Your task to perform on an android device: visit the assistant section in the google photos Image 0: 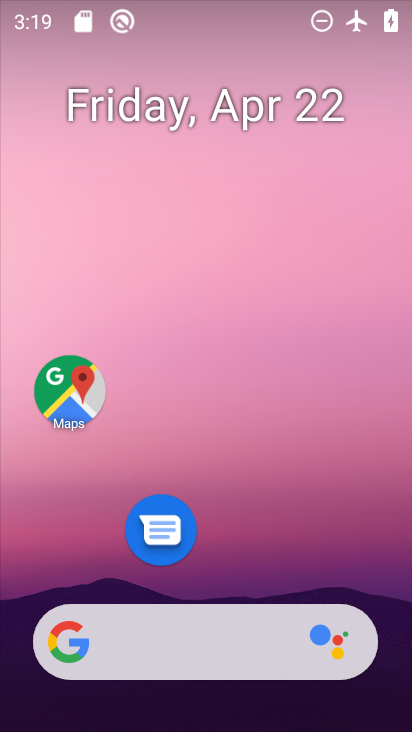
Step 0: drag from (230, 529) to (146, 0)
Your task to perform on an android device: visit the assistant section in the google photos Image 1: 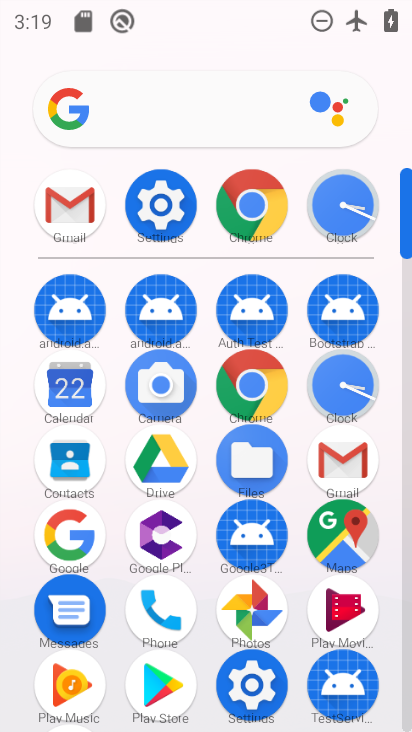
Step 1: drag from (231, 563) to (193, 1)
Your task to perform on an android device: visit the assistant section in the google photos Image 2: 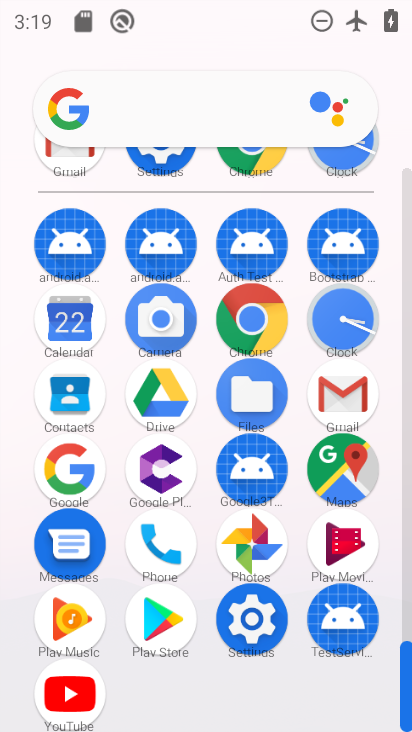
Step 2: click (249, 541)
Your task to perform on an android device: visit the assistant section in the google photos Image 3: 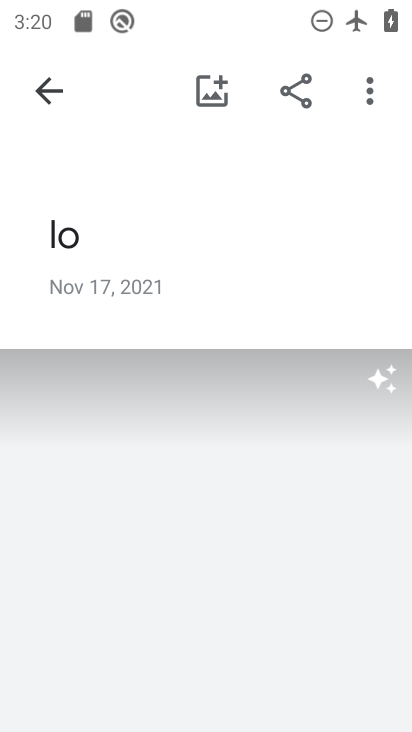
Step 3: click (47, 88)
Your task to perform on an android device: visit the assistant section in the google photos Image 4: 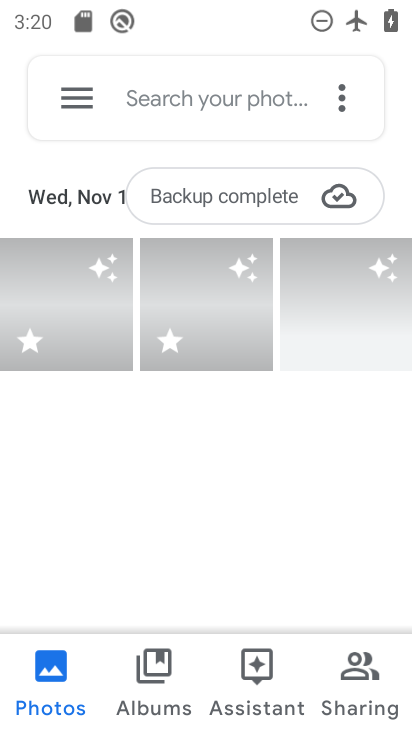
Step 4: click (246, 669)
Your task to perform on an android device: visit the assistant section in the google photos Image 5: 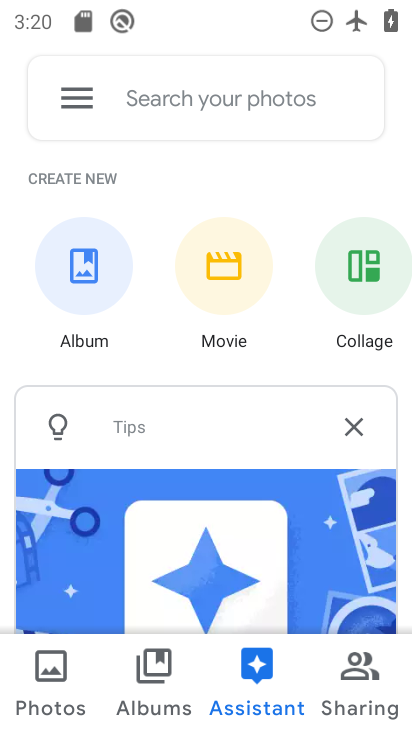
Step 5: task complete